Your task to perform on an android device: open app "LiveIn - Share Your Moment" Image 0: 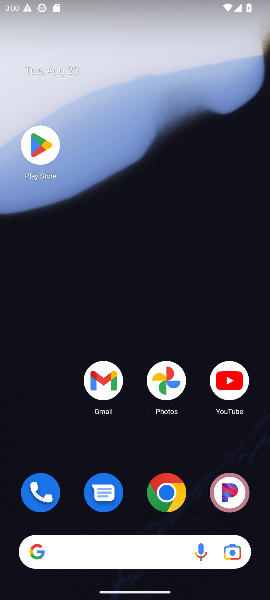
Step 0: click (41, 155)
Your task to perform on an android device: open app "LiveIn - Share Your Moment" Image 1: 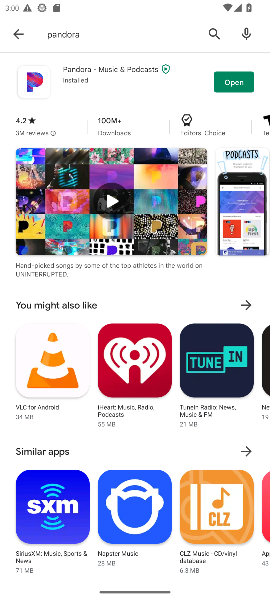
Step 1: click (208, 34)
Your task to perform on an android device: open app "LiveIn - Share Your Moment" Image 2: 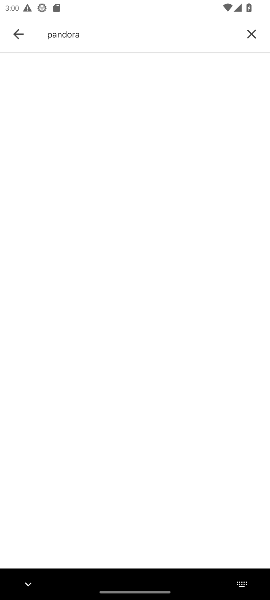
Step 2: click (249, 34)
Your task to perform on an android device: open app "LiveIn - Share Your Moment" Image 3: 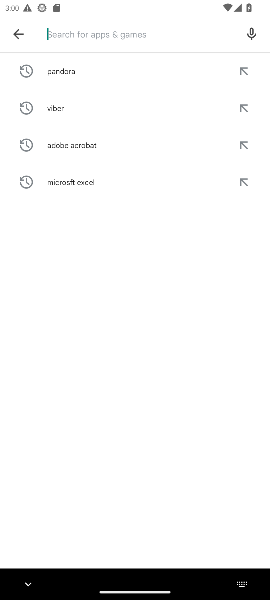
Step 3: type "liven"
Your task to perform on an android device: open app "LiveIn - Share Your Moment" Image 4: 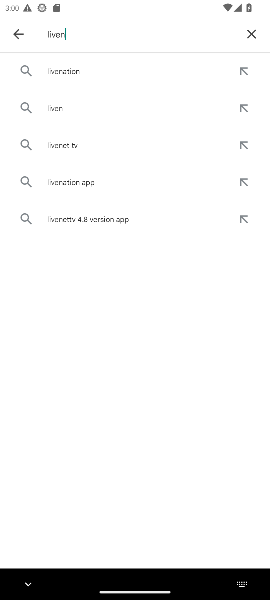
Step 4: task complete